Your task to perform on an android device: Show me productivity apps on the Play Store Image 0: 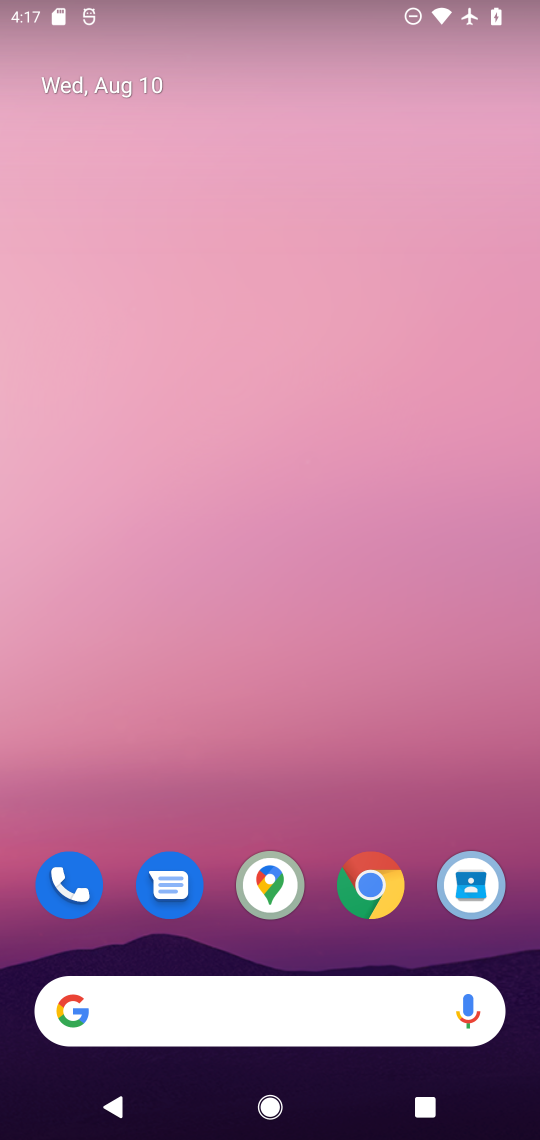
Step 0: drag from (322, 947) to (315, 203)
Your task to perform on an android device: Show me productivity apps on the Play Store Image 1: 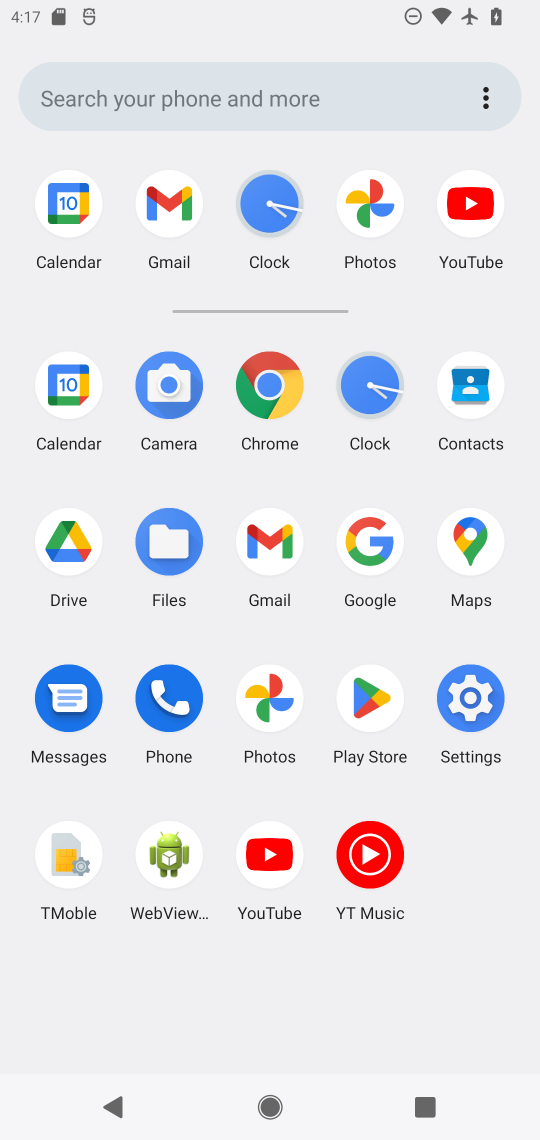
Step 1: click (377, 687)
Your task to perform on an android device: Show me productivity apps on the Play Store Image 2: 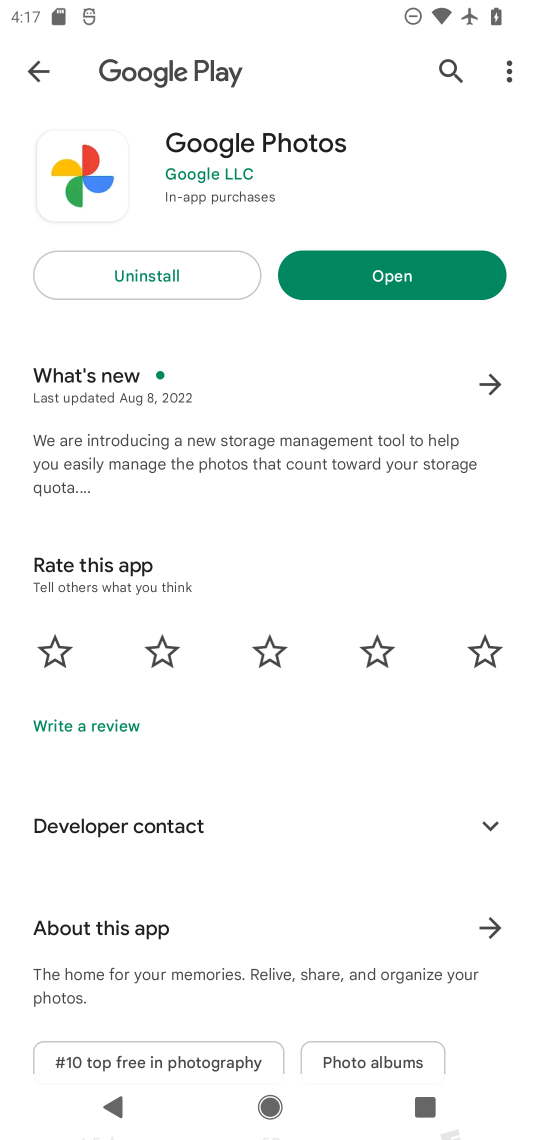
Step 2: click (35, 57)
Your task to perform on an android device: Show me productivity apps on the Play Store Image 3: 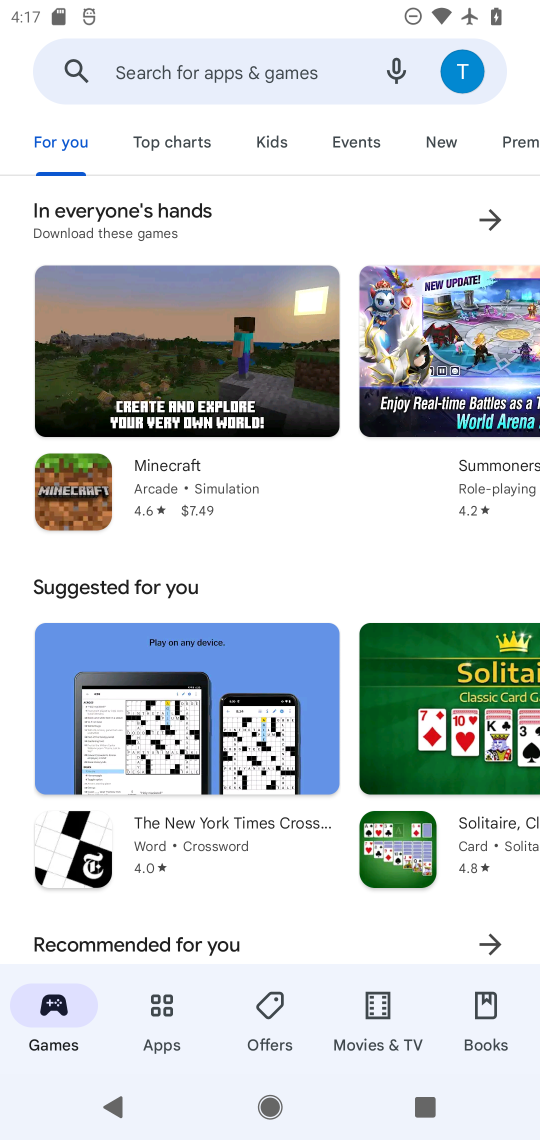
Step 3: click (160, 1008)
Your task to perform on an android device: Show me productivity apps on the Play Store Image 4: 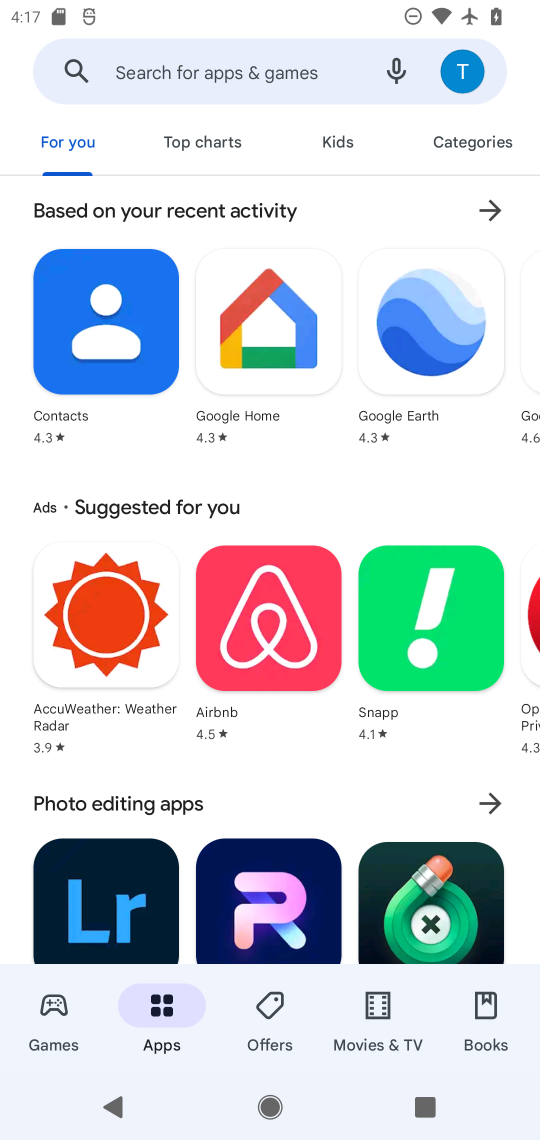
Step 4: task complete